Your task to perform on an android device: turn off location history Image 0: 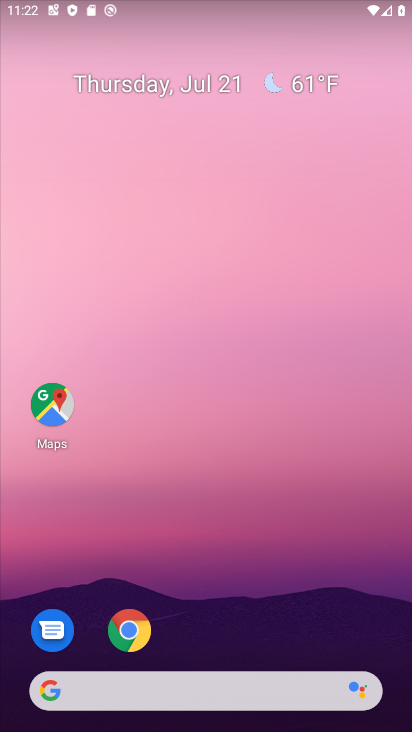
Step 0: drag from (228, 678) to (232, 257)
Your task to perform on an android device: turn off location history Image 1: 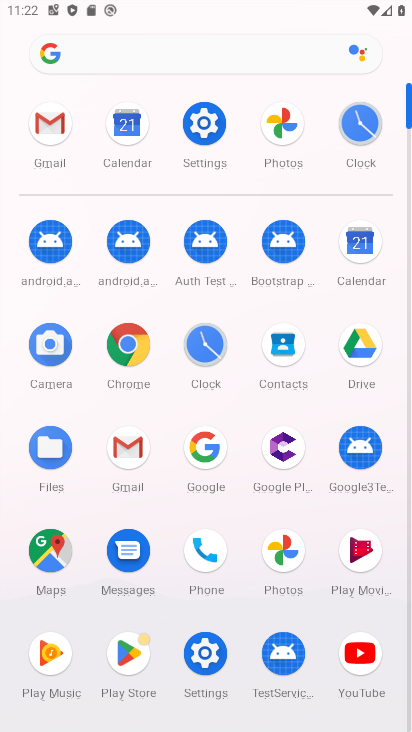
Step 1: click (210, 125)
Your task to perform on an android device: turn off location history Image 2: 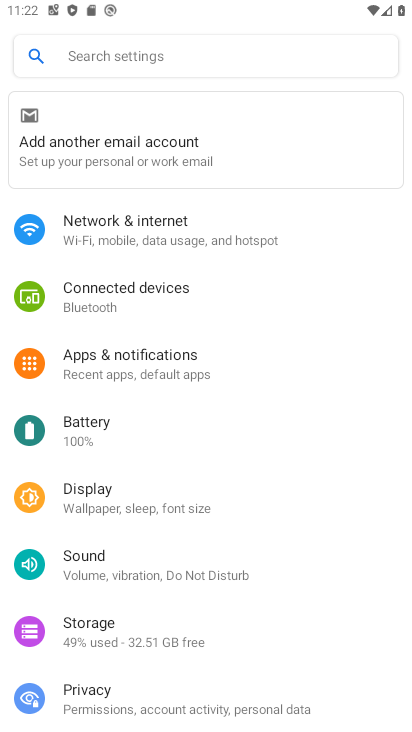
Step 2: drag from (124, 705) to (125, 335)
Your task to perform on an android device: turn off location history Image 3: 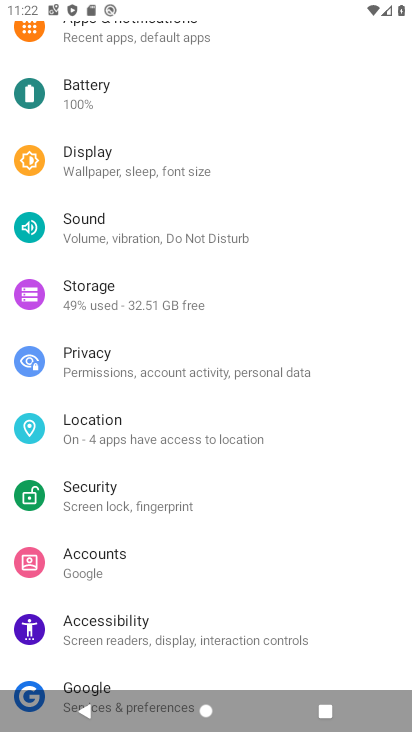
Step 3: click (98, 433)
Your task to perform on an android device: turn off location history Image 4: 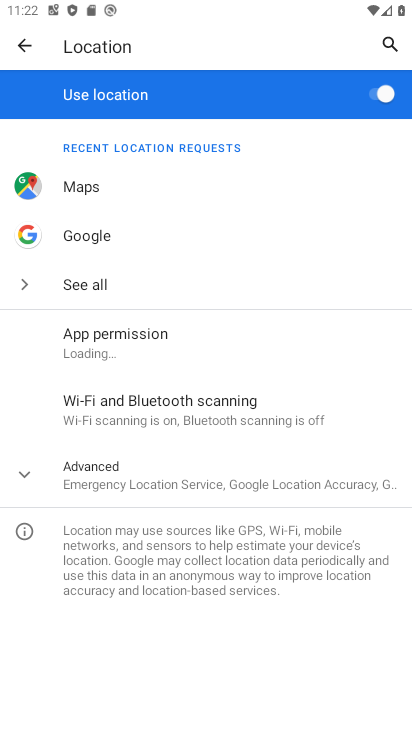
Step 4: click (101, 461)
Your task to perform on an android device: turn off location history Image 5: 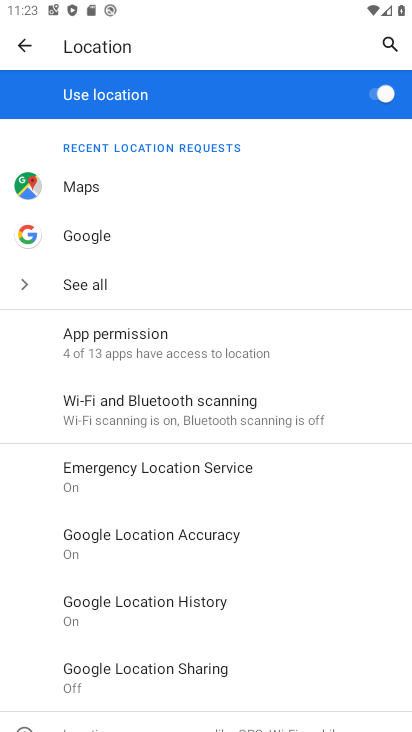
Step 5: click (166, 612)
Your task to perform on an android device: turn off location history Image 6: 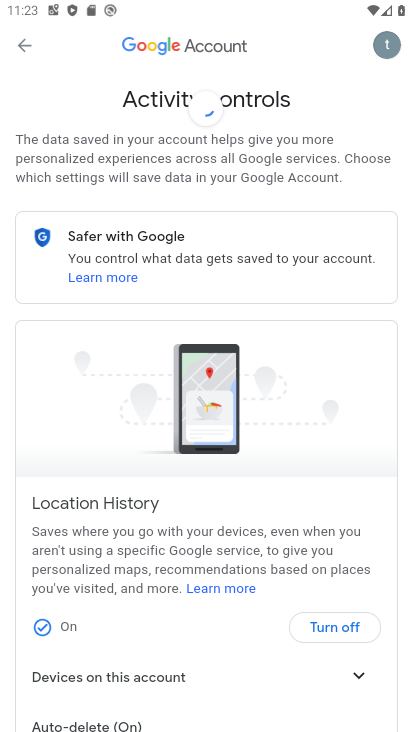
Step 6: click (344, 627)
Your task to perform on an android device: turn off location history Image 7: 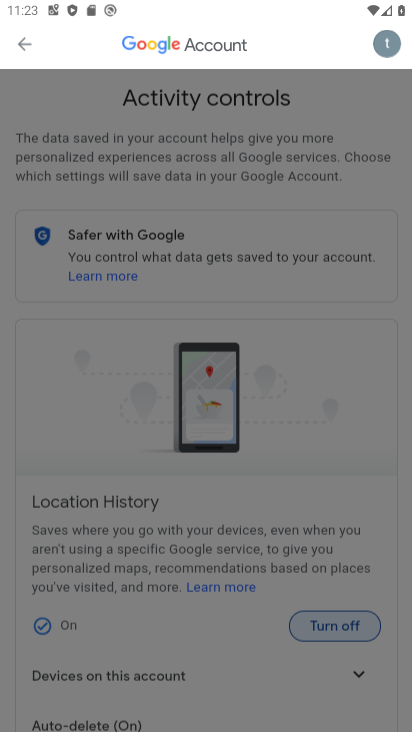
Step 7: click (344, 627)
Your task to perform on an android device: turn off location history Image 8: 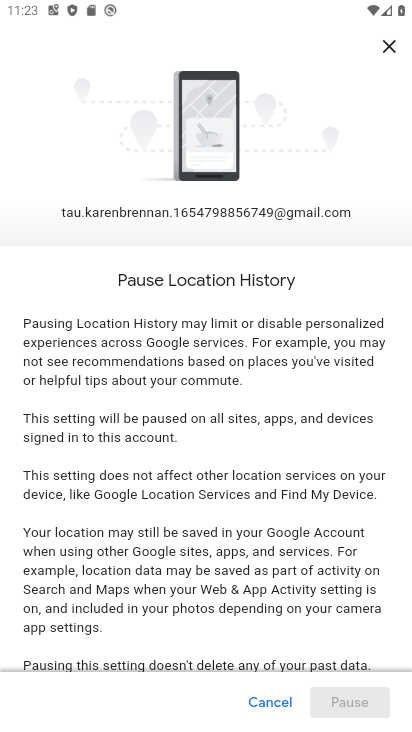
Step 8: drag from (333, 655) to (302, 395)
Your task to perform on an android device: turn off location history Image 9: 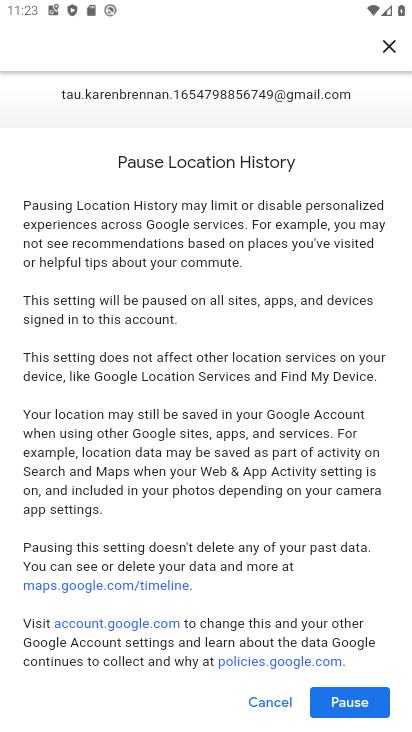
Step 9: click (323, 715)
Your task to perform on an android device: turn off location history Image 10: 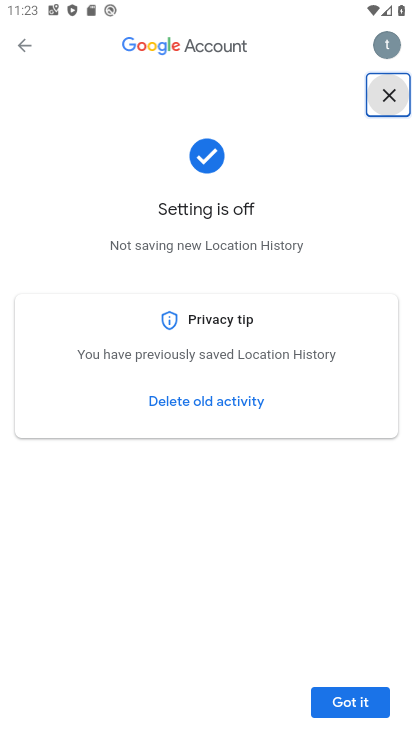
Step 10: click (345, 699)
Your task to perform on an android device: turn off location history Image 11: 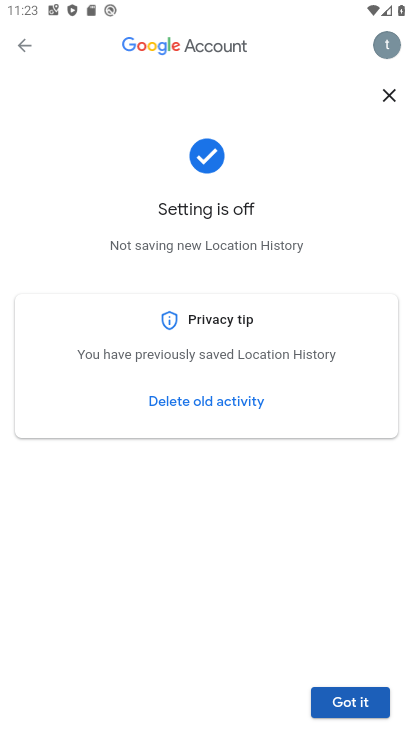
Step 11: click (354, 702)
Your task to perform on an android device: turn off location history Image 12: 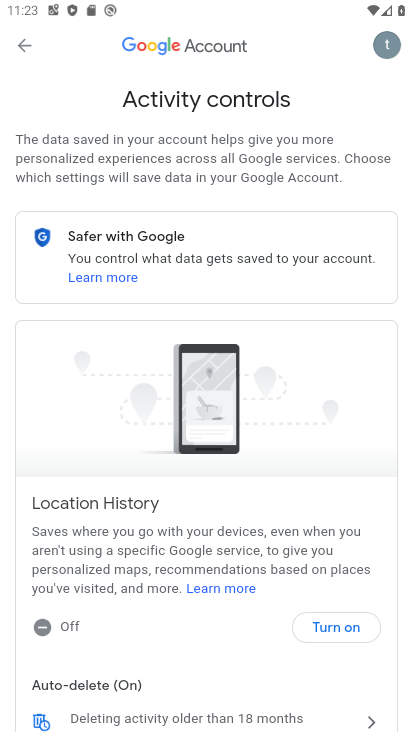
Step 12: click (349, 628)
Your task to perform on an android device: turn off location history Image 13: 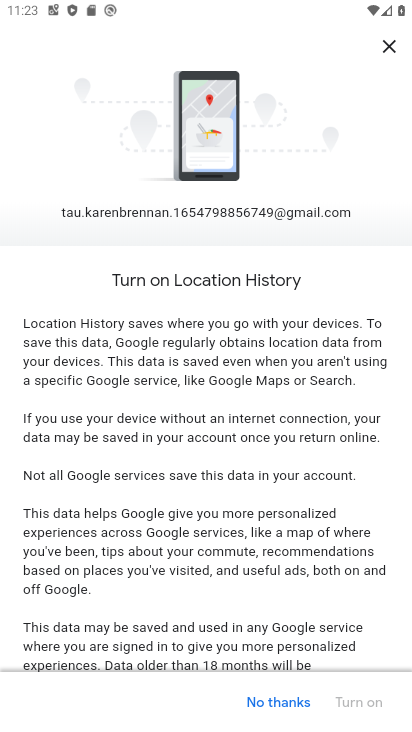
Step 13: task complete